Your task to perform on an android device: What's on my calendar today? Image 0: 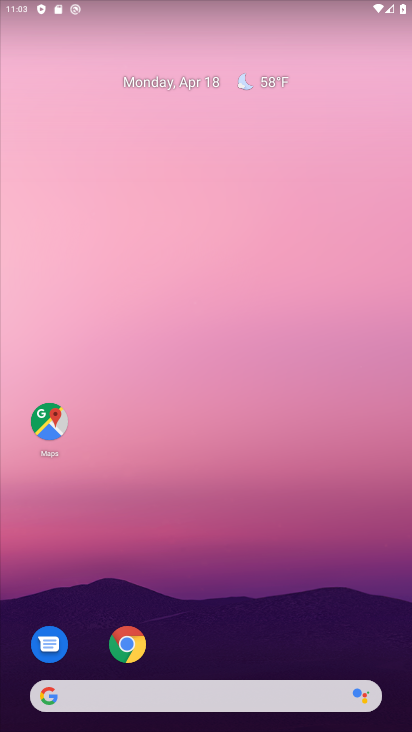
Step 0: drag from (192, 651) to (232, 190)
Your task to perform on an android device: What's on my calendar today? Image 1: 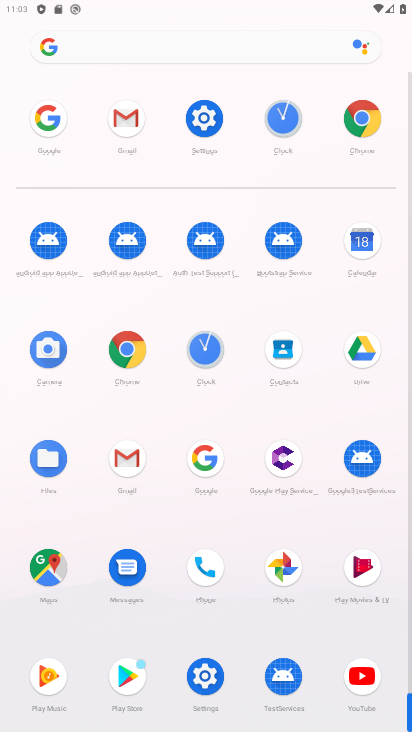
Step 1: drag from (231, 625) to (240, 506)
Your task to perform on an android device: What's on my calendar today? Image 2: 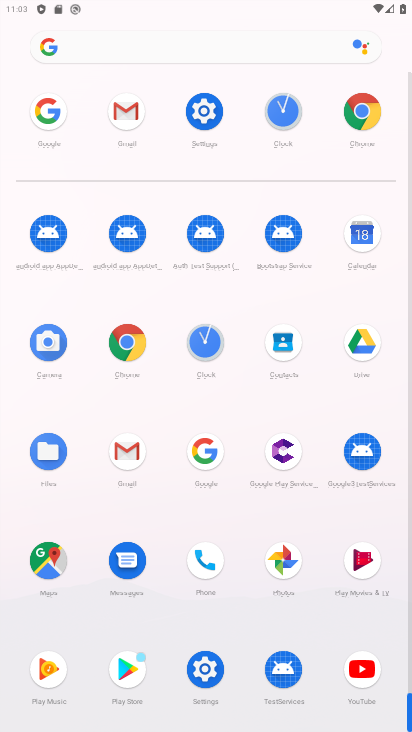
Step 2: click (372, 237)
Your task to perform on an android device: What's on my calendar today? Image 3: 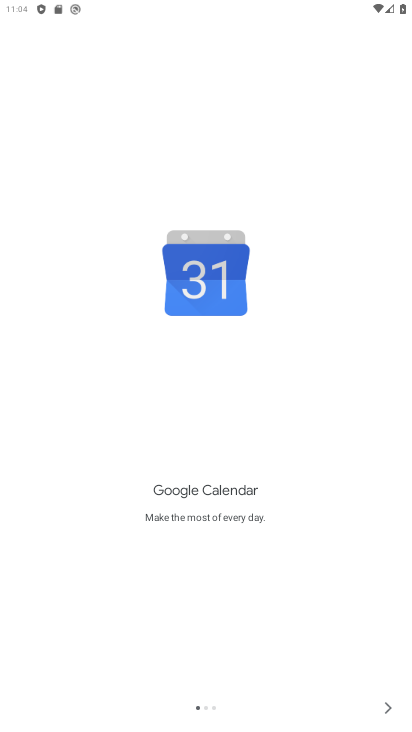
Step 3: click (384, 713)
Your task to perform on an android device: What's on my calendar today? Image 4: 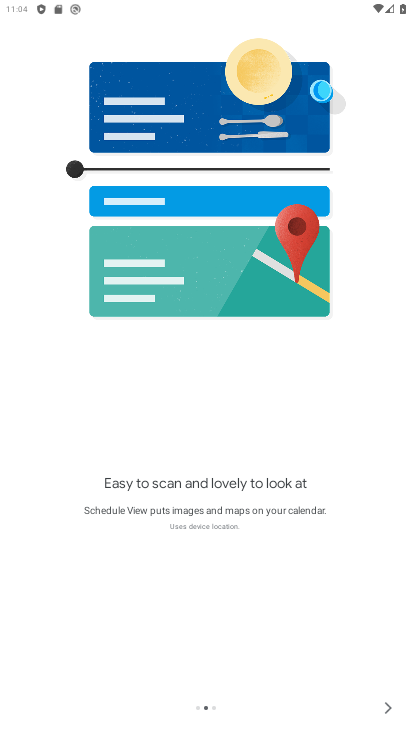
Step 4: click (384, 713)
Your task to perform on an android device: What's on my calendar today? Image 5: 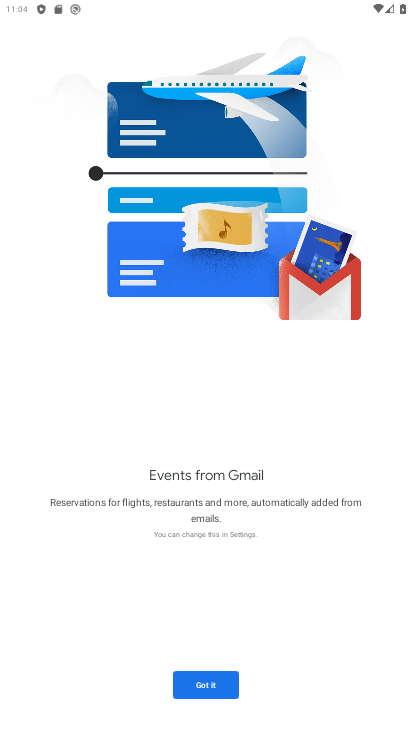
Step 5: click (212, 679)
Your task to perform on an android device: What's on my calendar today? Image 6: 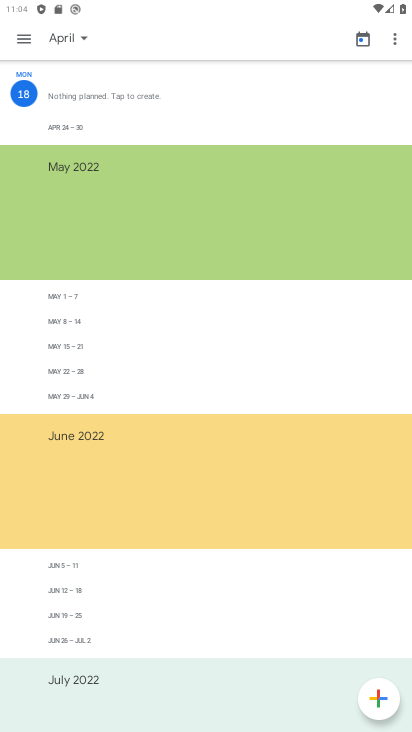
Step 6: click (71, 41)
Your task to perform on an android device: What's on my calendar today? Image 7: 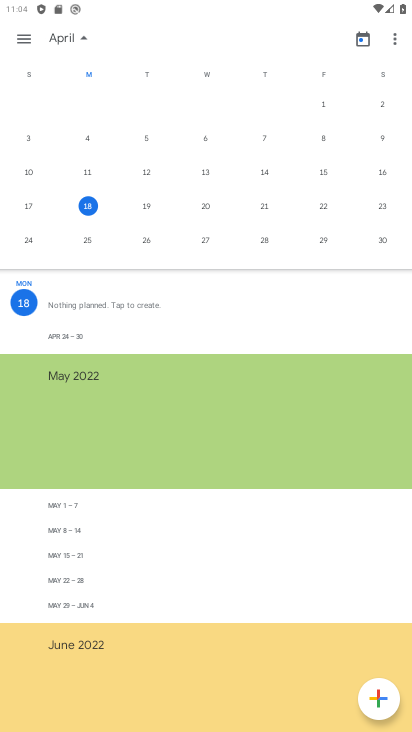
Step 7: click (84, 207)
Your task to perform on an android device: What's on my calendar today? Image 8: 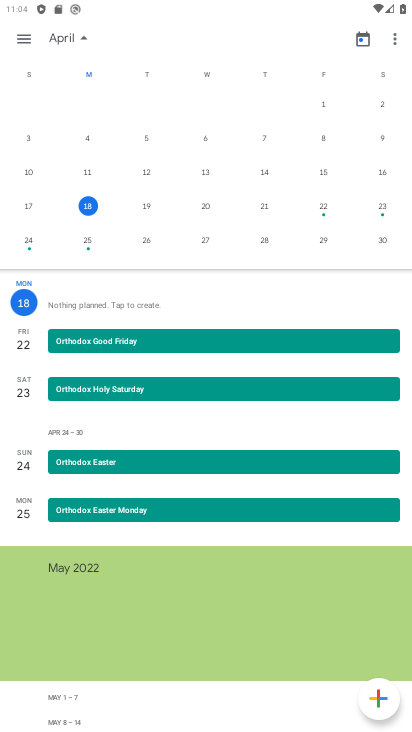
Step 8: task complete